Your task to perform on an android device: change the clock display to show seconds Image 0: 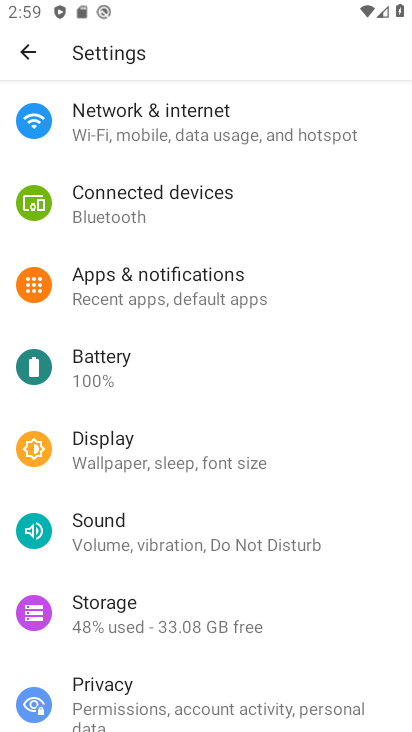
Step 0: press home button
Your task to perform on an android device: change the clock display to show seconds Image 1: 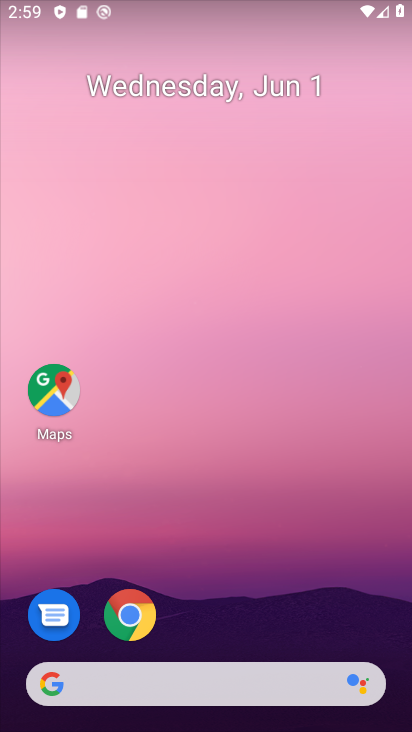
Step 1: drag from (309, 638) to (327, 30)
Your task to perform on an android device: change the clock display to show seconds Image 2: 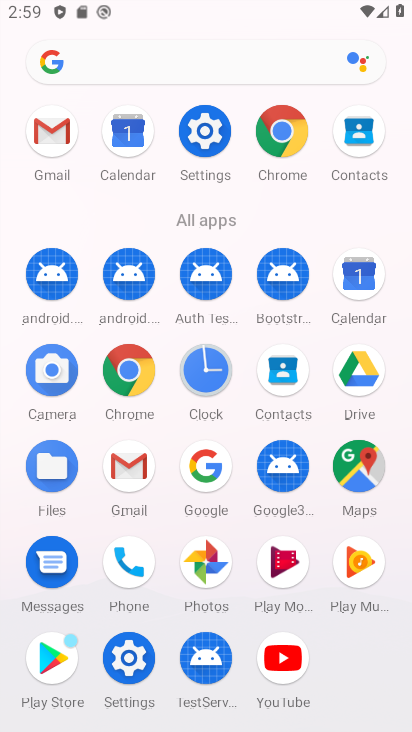
Step 2: click (225, 380)
Your task to perform on an android device: change the clock display to show seconds Image 3: 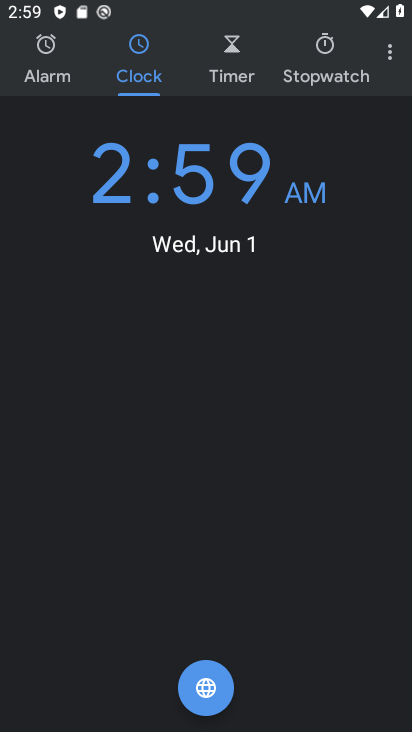
Step 3: click (390, 63)
Your task to perform on an android device: change the clock display to show seconds Image 4: 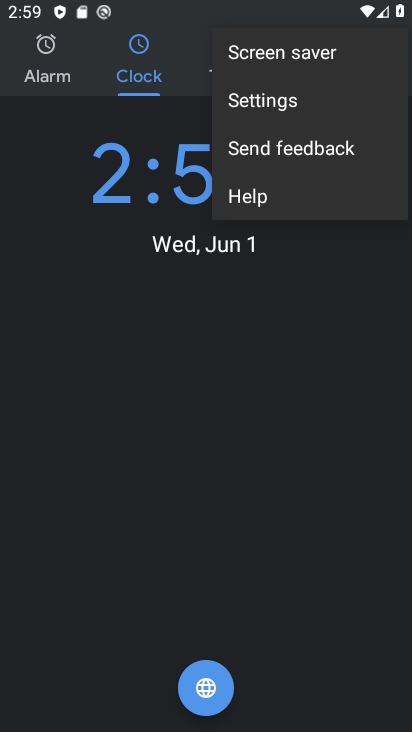
Step 4: click (278, 98)
Your task to perform on an android device: change the clock display to show seconds Image 5: 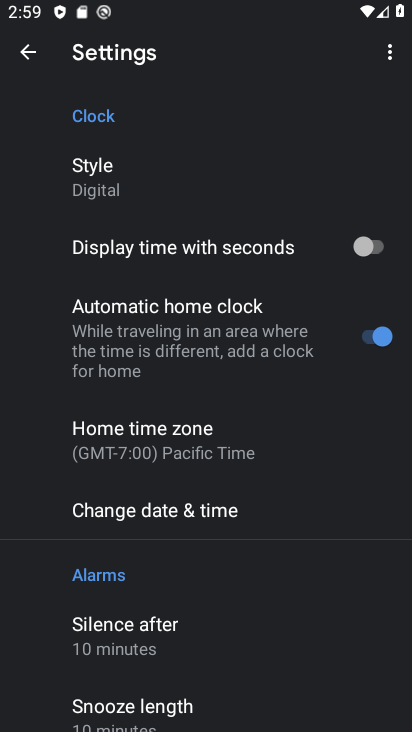
Step 5: click (379, 249)
Your task to perform on an android device: change the clock display to show seconds Image 6: 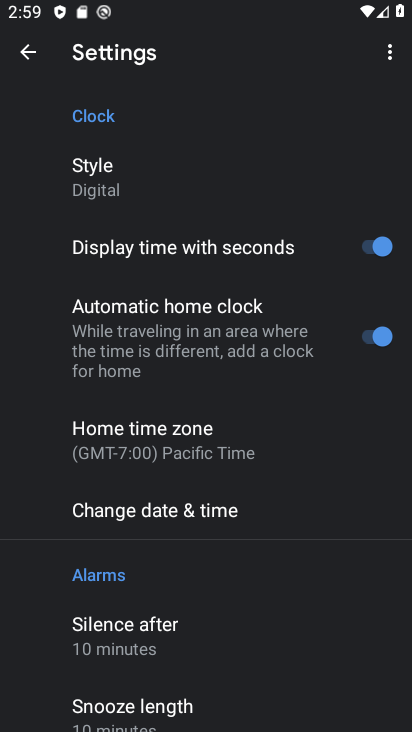
Step 6: task complete